Your task to perform on an android device: turn off smart reply in the gmail app Image 0: 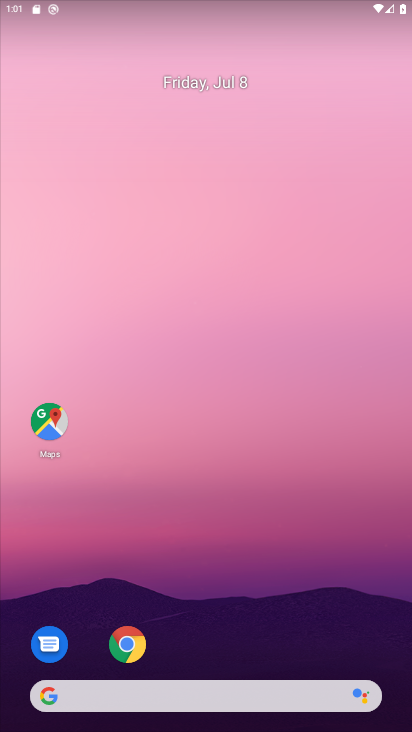
Step 0: drag from (184, 676) to (289, 162)
Your task to perform on an android device: turn off smart reply in the gmail app Image 1: 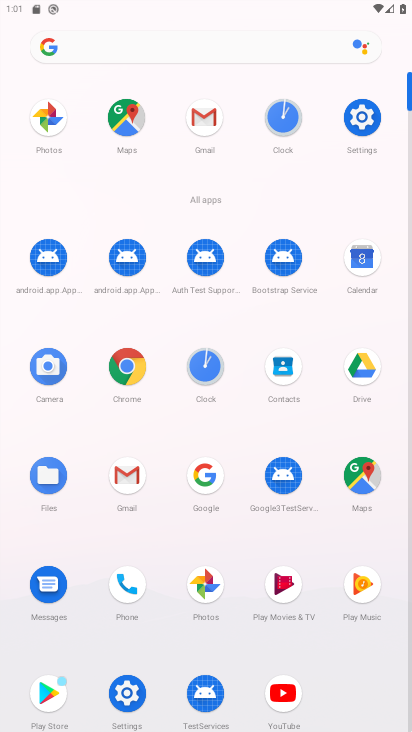
Step 1: click (118, 477)
Your task to perform on an android device: turn off smart reply in the gmail app Image 2: 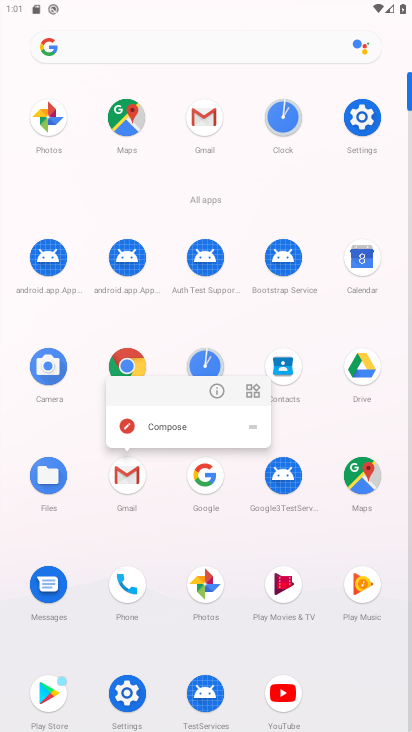
Step 2: click (124, 475)
Your task to perform on an android device: turn off smart reply in the gmail app Image 3: 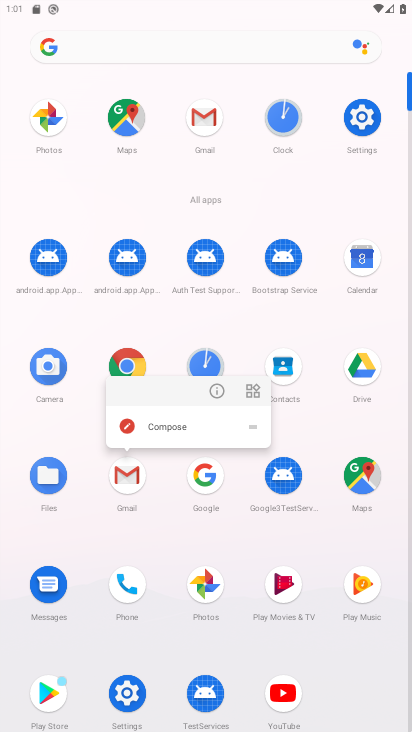
Step 3: click (126, 476)
Your task to perform on an android device: turn off smart reply in the gmail app Image 4: 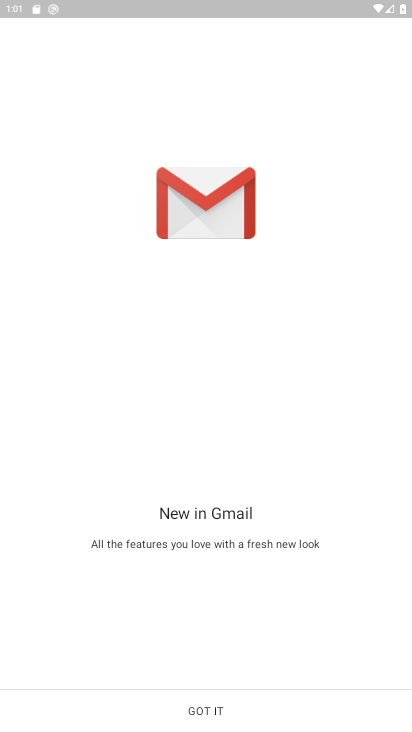
Step 4: click (194, 703)
Your task to perform on an android device: turn off smart reply in the gmail app Image 5: 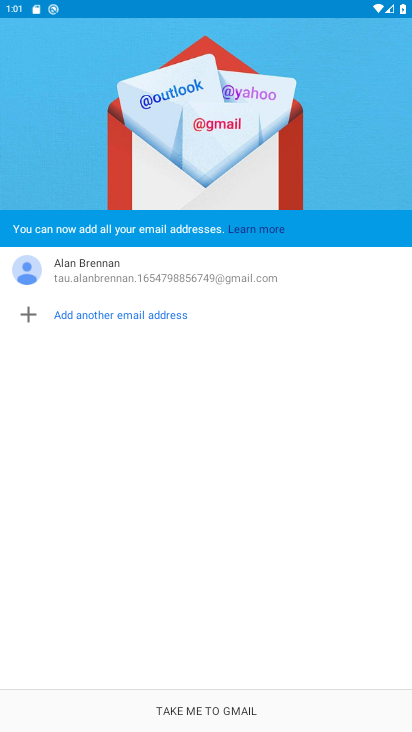
Step 5: click (229, 711)
Your task to perform on an android device: turn off smart reply in the gmail app Image 6: 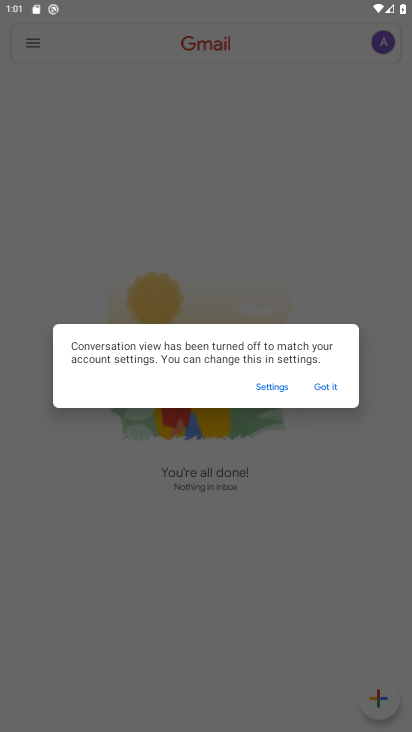
Step 6: click (323, 391)
Your task to perform on an android device: turn off smart reply in the gmail app Image 7: 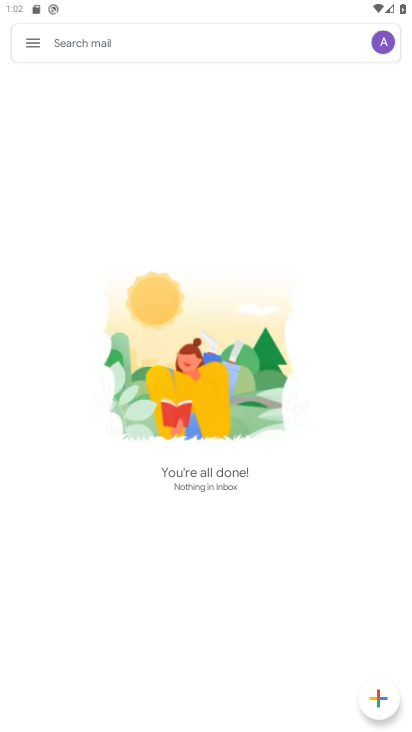
Step 7: click (45, 42)
Your task to perform on an android device: turn off smart reply in the gmail app Image 8: 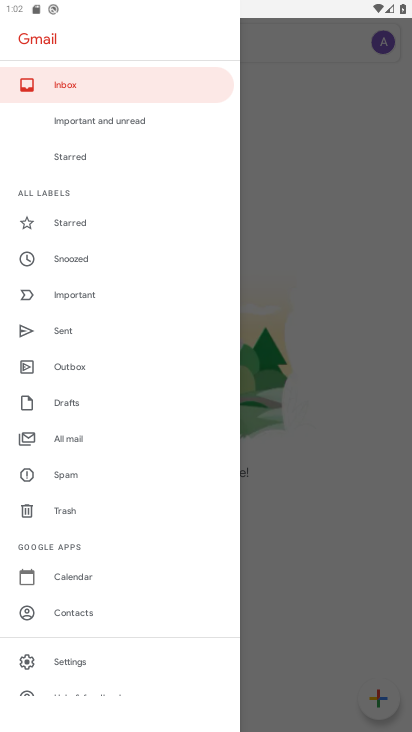
Step 8: drag from (110, 627) to (184, 258)
Your task to perform on an android device: turn off smart reply in the gmail app Image 9: 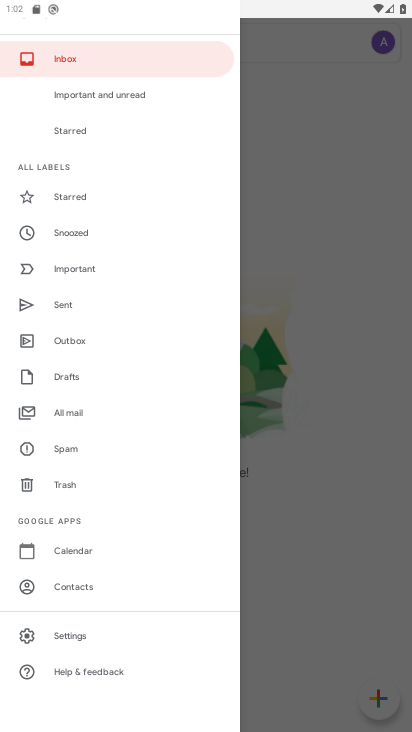
Step 9: click (106, 638)
Your task to perform on an android device: turn off smart reply in the gmail app Image 10: 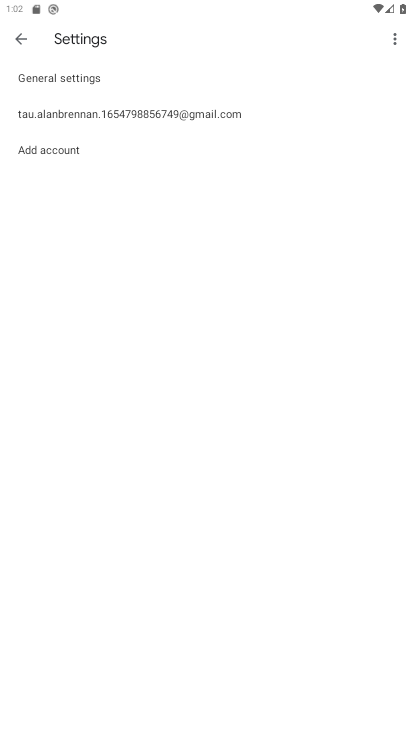
Step 10: click (241, 114)
Your task to perform on an android device: turn off smart reply in the gmail app Image 11: 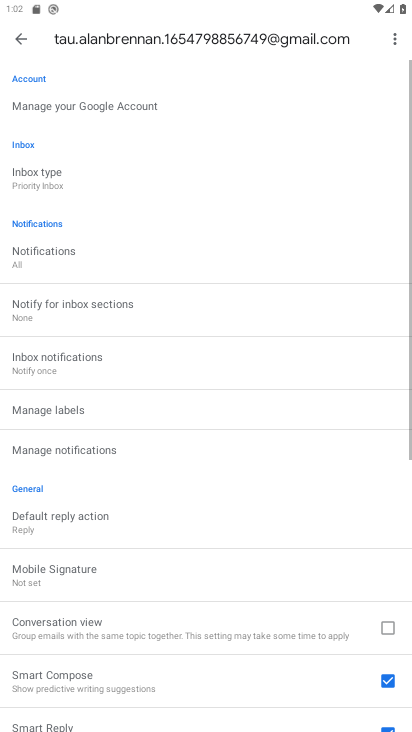
Step 11: drag from (125, 594) to (226, 306)
Your task to perform on an android device: turn off smart reply in the gmail app Image 12: 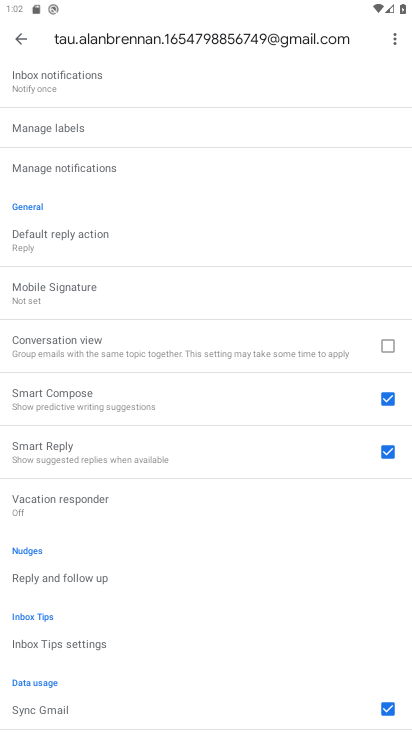
Step 12: click (385, 455)
Your task to perform on an android device: turn off smart reply in the gmail app Image 13: 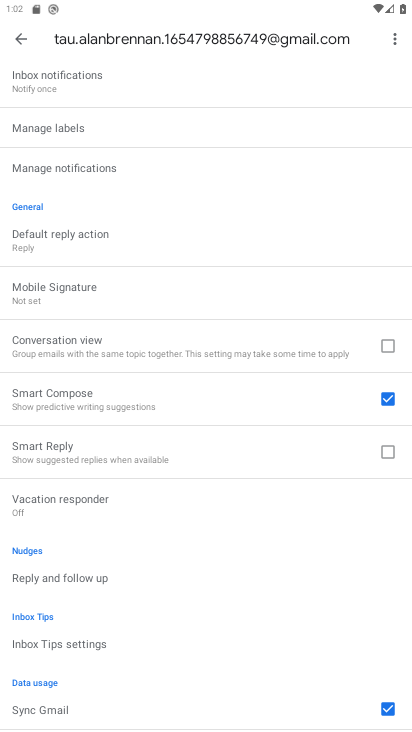
Step 13: task complete